Your task to perform on an android device: turn on showing notifications on the lock screen Image 0: 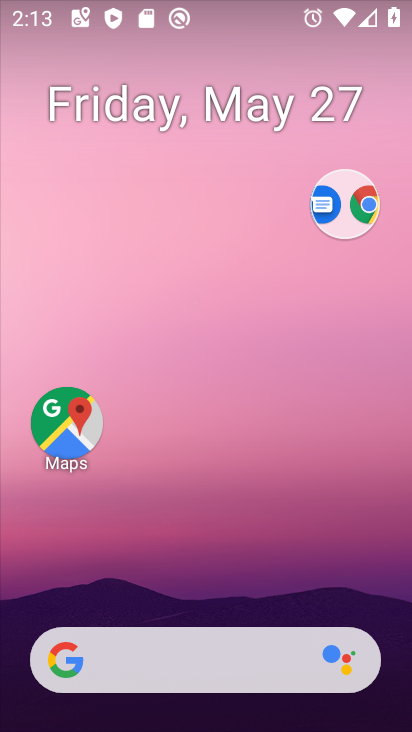
Step 0: drag from (233, 560) to (231, 267)
Your task to perform on an android device: turn on showing notifications on the lock screen Image 1: 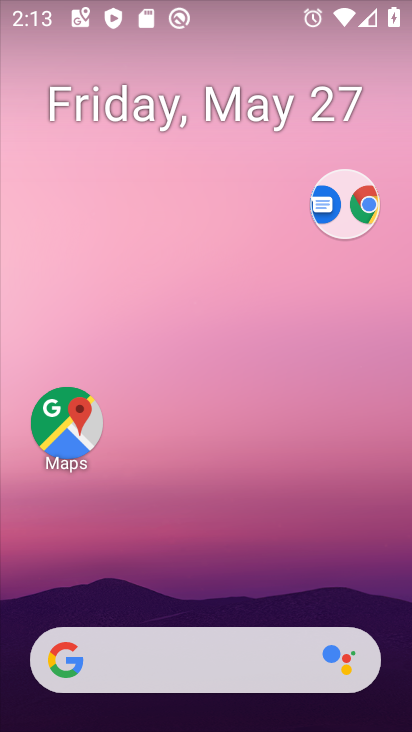
Step 1: drag from (198, 614) to (203, 159)
Your task to perform on an android device: turn on showing notifications on the lock screen Image 2: 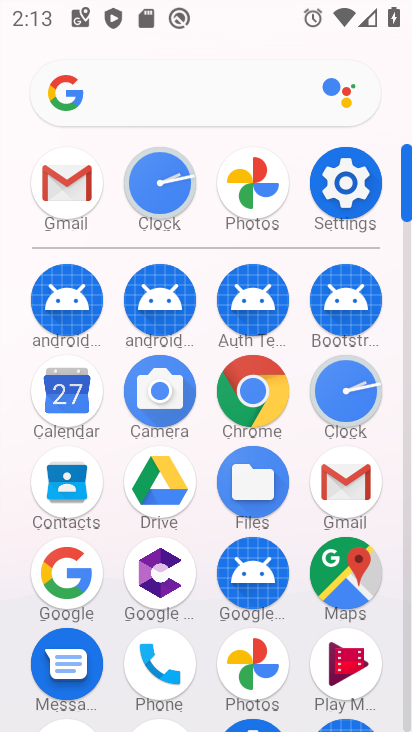
Step 2: click (367, 191)
Your task to perform on an android device: turn on showing notifications on the lock screen Image 3: 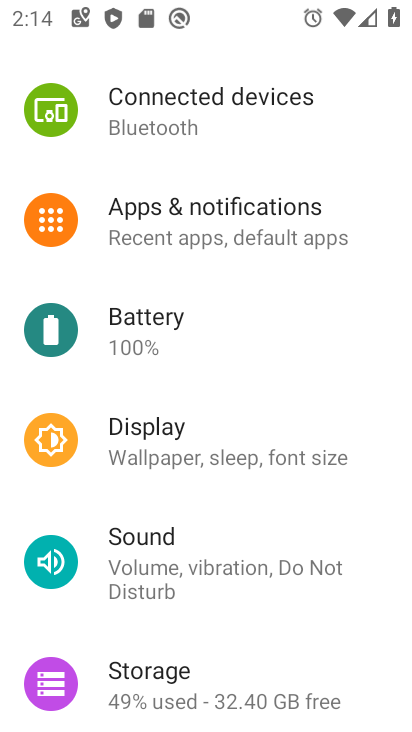
Step 3: click (193, 215)
Your task to perform on an android device: turn on showing notifications on the lock screen Image 4: 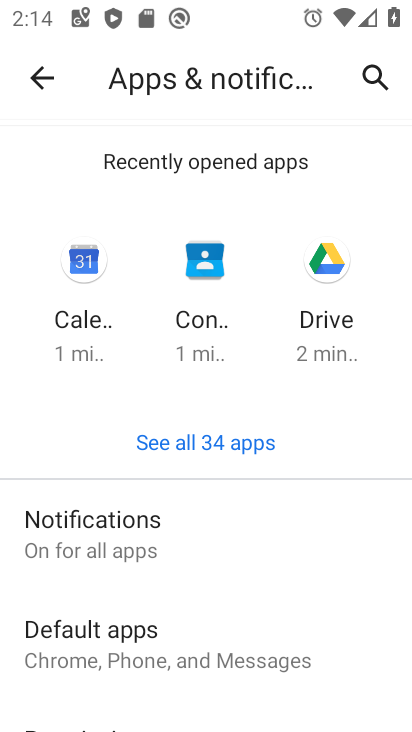
Step 4: click (100, 528)
Your task to perform on an android device: turn on showing notifications on the lock screen Image 5: 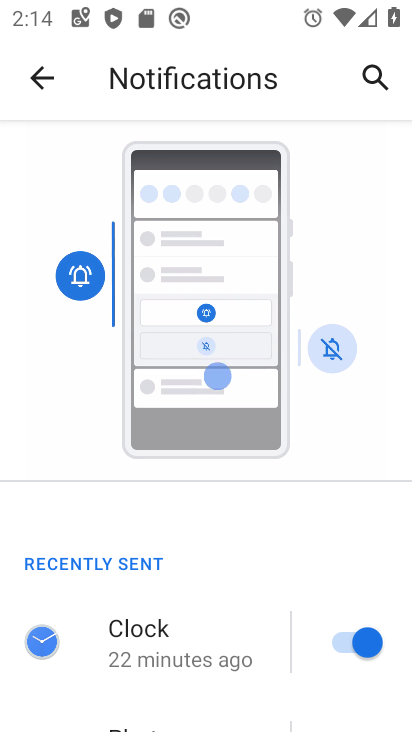
Step 5: drag from (153, 557) to (249, 237)
Your task to perform on an android device: turn on showing notifications on the lock screen Image 6: 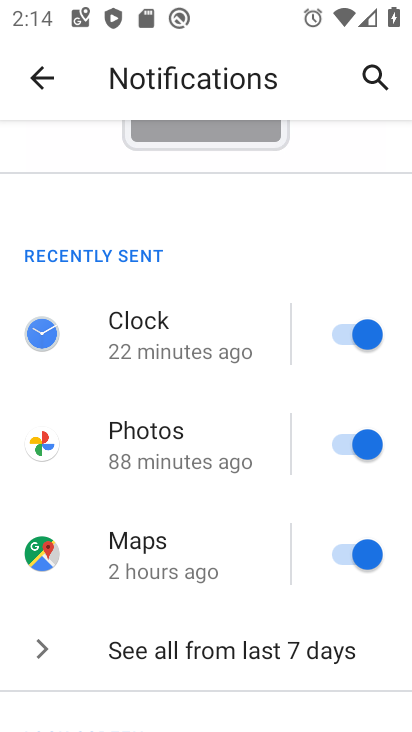
Step 6: drag from (184, 573) to (306, 68)
Your task to perform on an android device: turn on showing notifications on the lock screen Image 7: 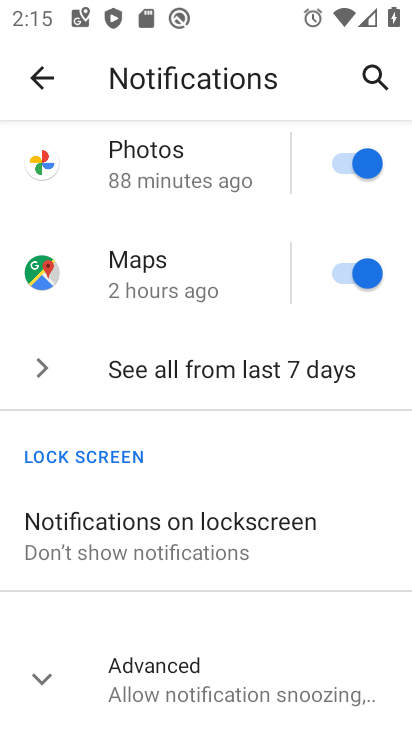
Step 7: click (239, 530)
Your task to perform on an android device: turn on showing notifications on the lock screen Image 8: 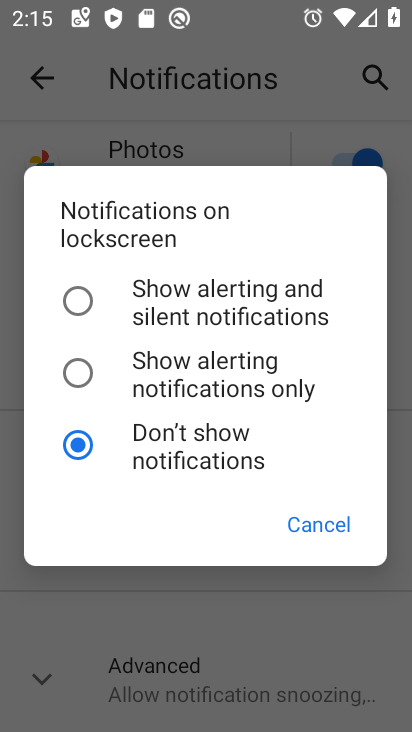
Step 8: click (133, 315)
Your task to perform on an android device: turn on showing notifications on the lock screen Image 9: 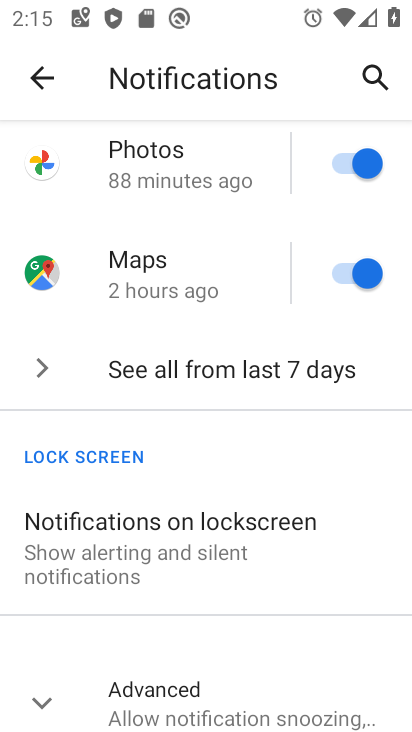
Step 9: task complete